Your task to perform on an android device: check the backup settings in the google photos Image 0: 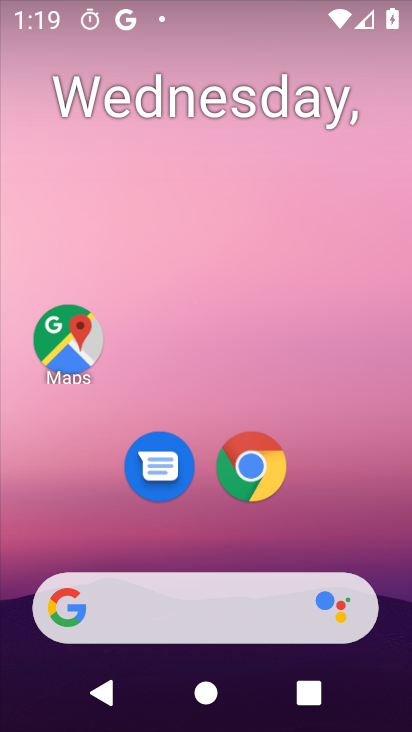
Step 0: drag from (387, 551) to (264, 69)
Your task to perform on an android device: check the backup settings in the google photos Image 1: 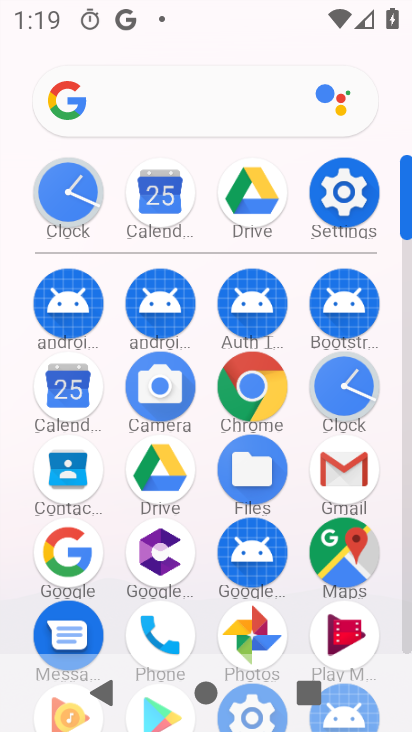
Step 1: click (243, 628)
Your task to perform on an android device: check the backup settings in the google photos Image 2: 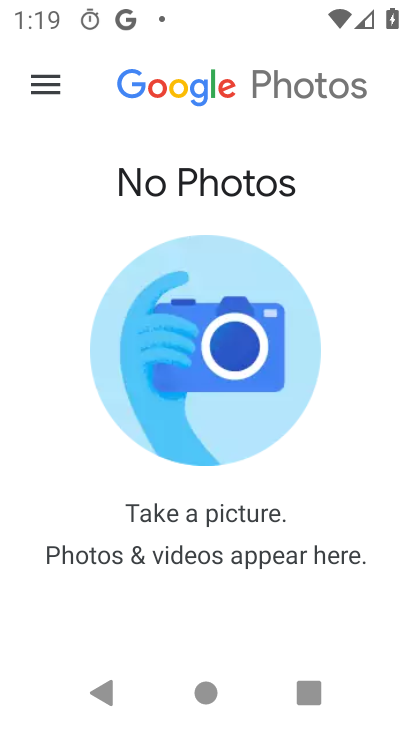
Step 2: click (45, 85)
Your task to perform on an android device: check the backup settings in the google photos Image 3: 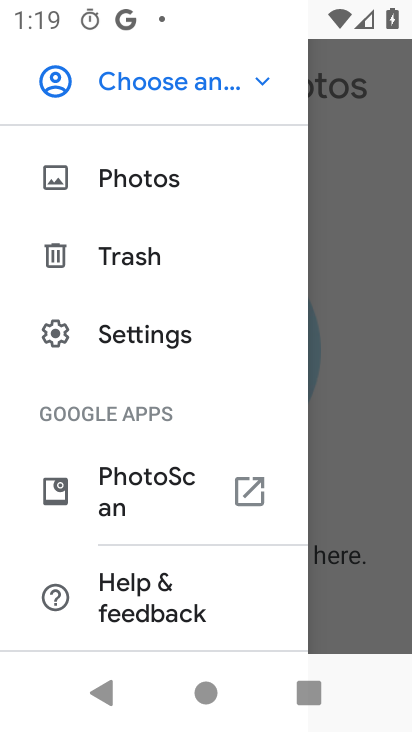
Step 3: click (132, 317)
Your task to perform on an android device: check the backup settings in the google photos Image 4: 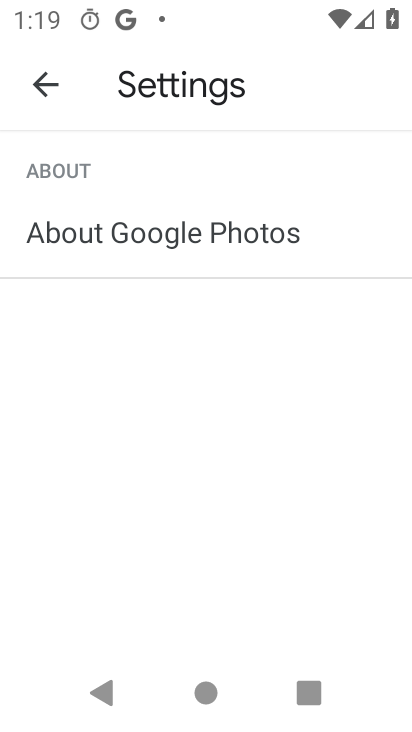
Step 4: drag from (165, 205) to (170, 384)
Your task to perform on an android device: check the backup settings in the google photos Image 5: 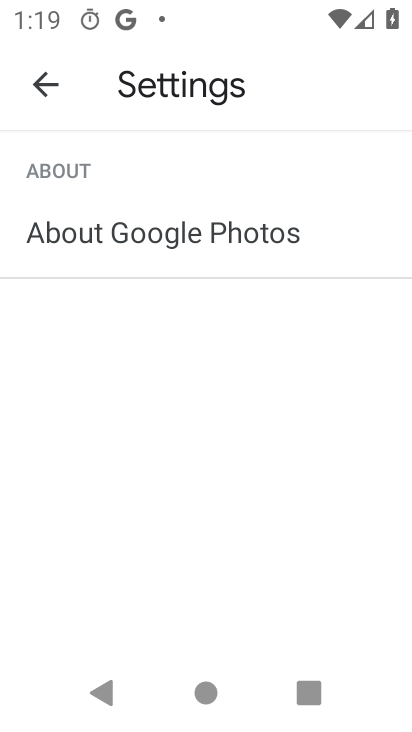
Step 5: press back button
Your task to perform on an android device: check the backup settings in the google photos Image 6: 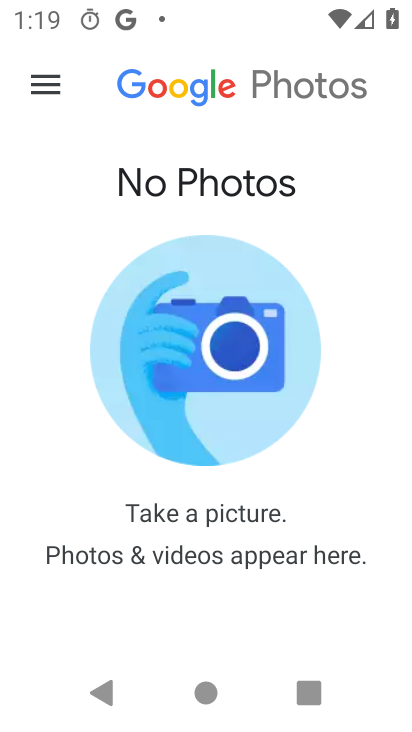
Step 6: click (52, 82)
Your task to perform on an android device: check the backup settings in the google photos Image 7: 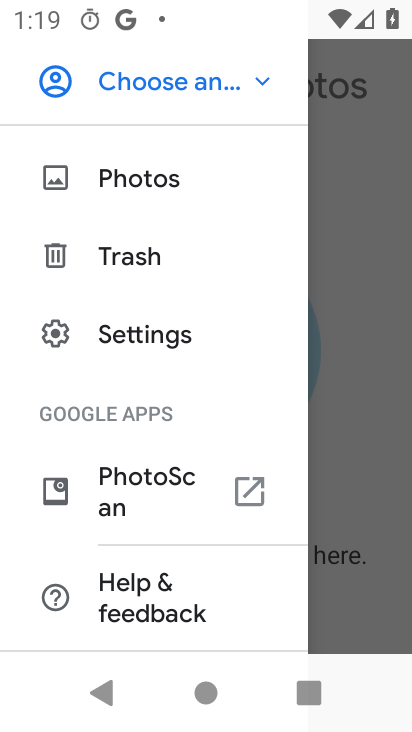
Step 7: drag from (127, 405) to (135, 15)
Your task to perform on an android device: check the backup settings in the google photos Image 8: 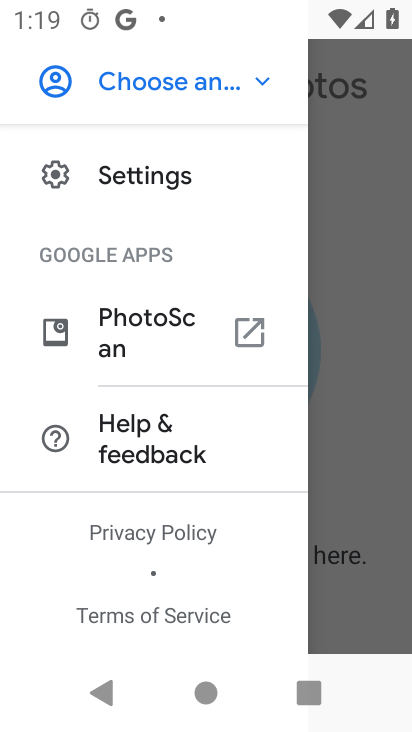
Step 8: drag from (136, 175) to (75, 478)
Your task to perform on an android device: check the backup settings in the google photos Image 9: 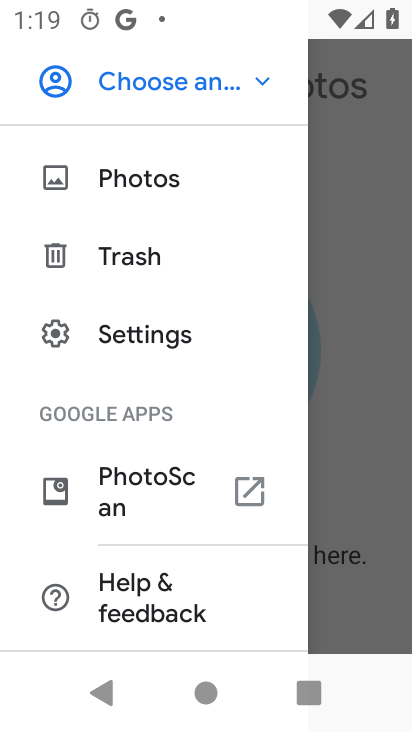
Step 9: click (92, 339)
Your task to perform on an android device: check the backup settings in the google photos Image 10: 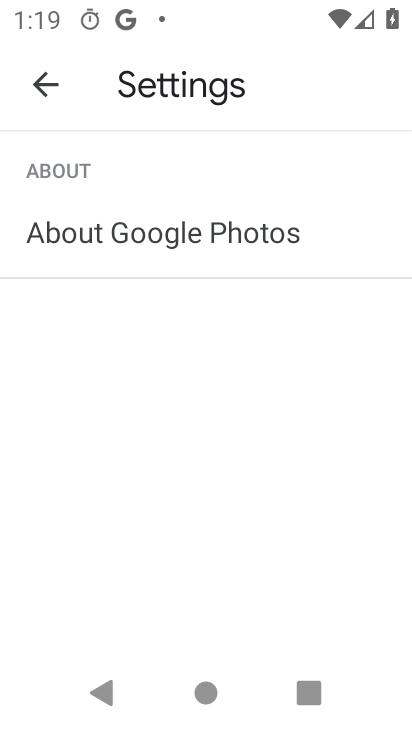
Step 10: click (122, 238)
Your task to perform on an android device: check the backup settings in the google photos Image 11: 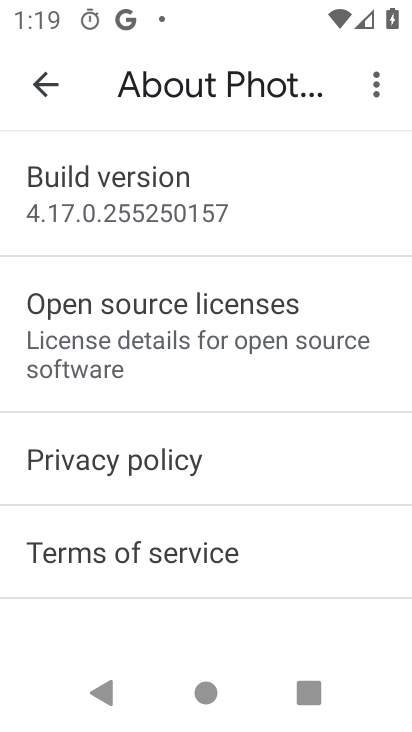
Step 11: task complete